Your task to perform on an android device: open app "VLC for Android" Image 0: 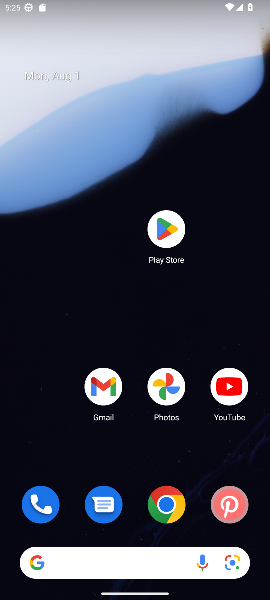
Step 0: click (165, 228)
Your task to perform on an android device: open app "VLC for Android" Image 1: 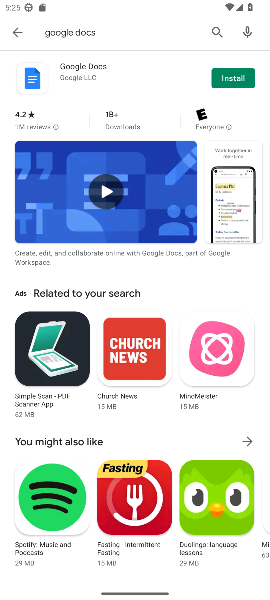
Step 1: click (216, 28)
Your task to perform on an android device: open app "VLC for Android" Image 2: 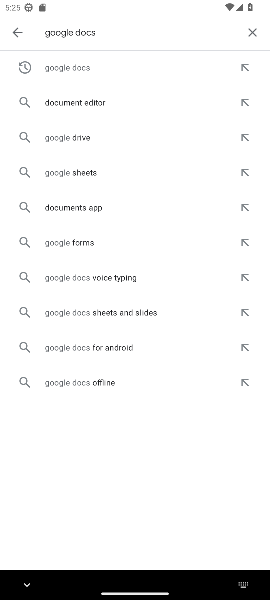
Step 2: click (250, 32)
Your task to perform on an android device: open app "VLC for Android" Image 3: 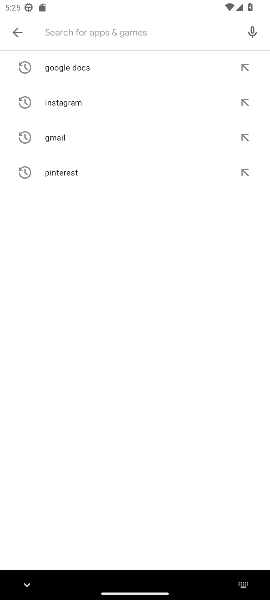
Step 3: type "VLC for Android"
Your task to perform on an android device: open app "VLC for Android" Image 4: 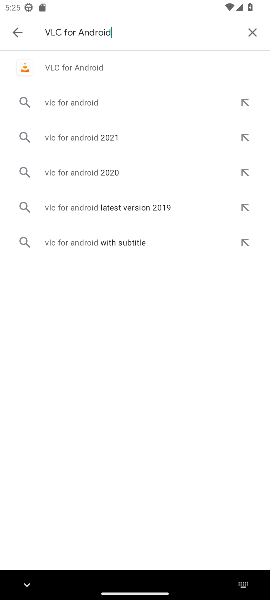
Step 4: click (85, 68)
Your task to perform on an android device: open app "VLC for Android" Image 5: 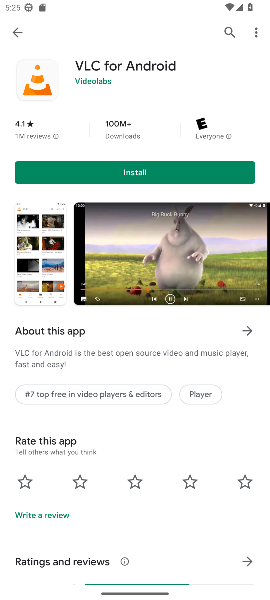
Step 5: task complete